Your task to perform on an android device: turn off notifications in google photos Image 0: 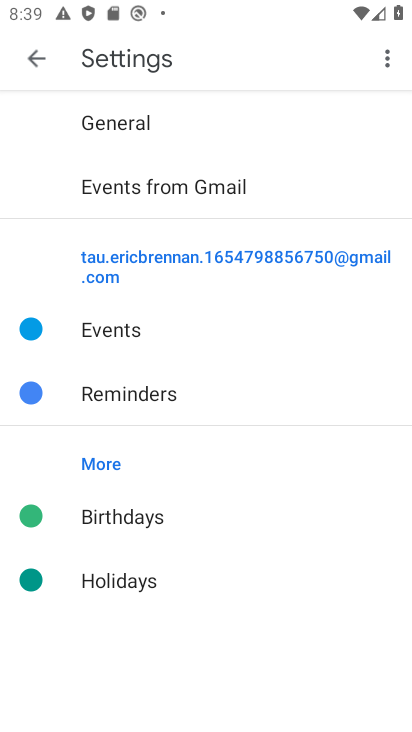
Step 0: press home button
Your task to perform on an android device: turn off notifications in google photos Image 1: 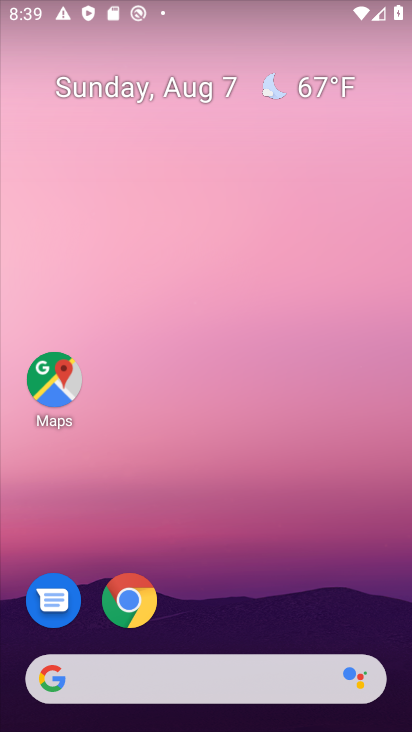
Step 1: drag from (192, 613) to (197, 191)
Your task to perform on an android device: turn off notifications in google photos Image 2: 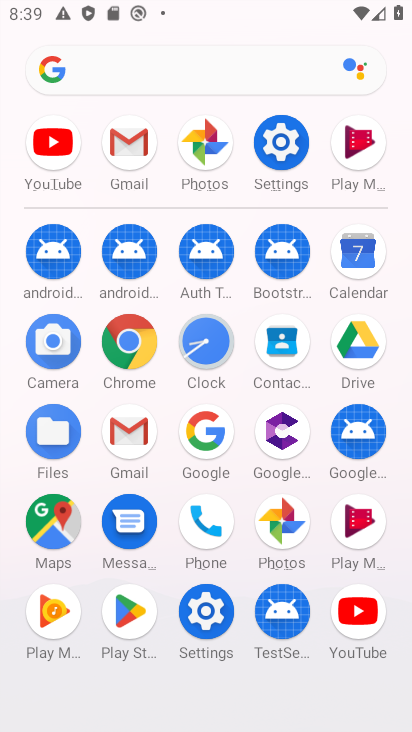
Step 2: click (133, 139)
Your task to perform on an android device: turn off notifications in google photos Image 3: 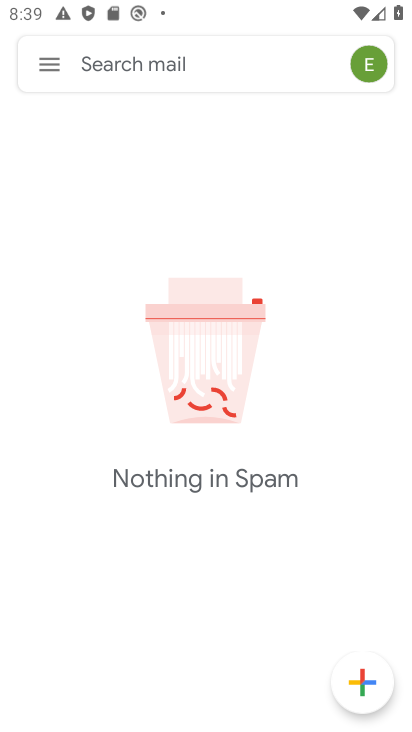
Step 3: click (51, 60)
Your task to perform on an android device: turn off notifications in google photos Image 4: 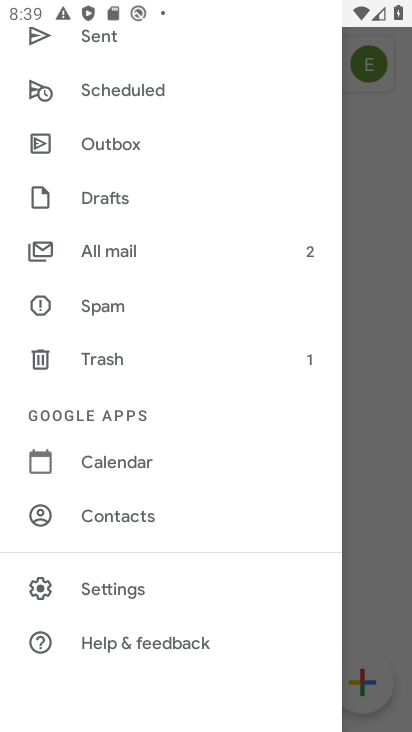
Step 4: click (117, 585)
Your task to perform on an android device: turn off notifications in google photos Image 5: 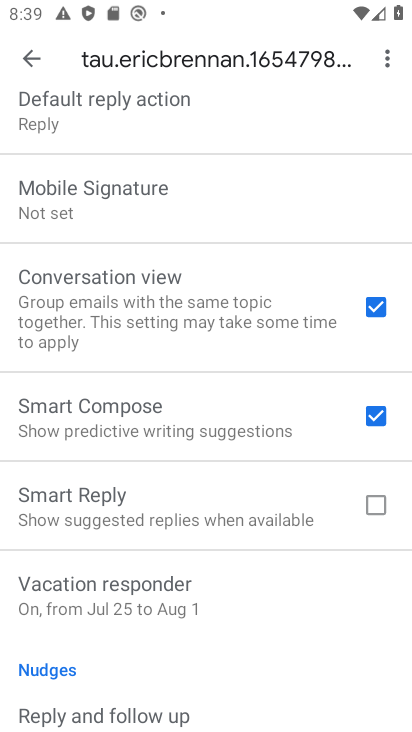
Step 5: drag from (269, 335) to (268, 665)
Your task to perform on an android device: turn off notifications in google photos Image 6: 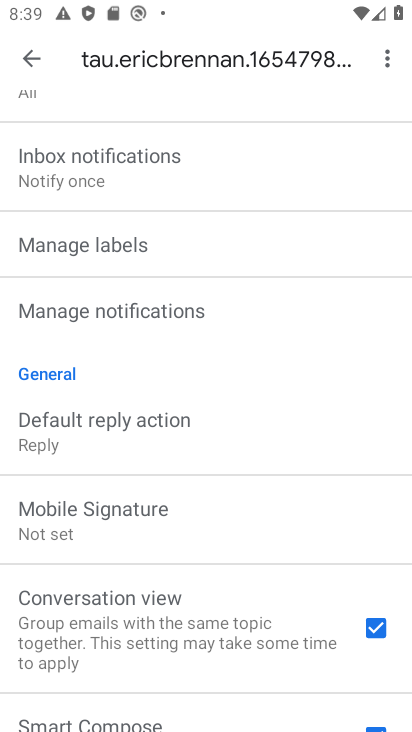
Step 6: click (135, 309)
Your task to perform on an android device: turn off notifications in google photos Image 7: 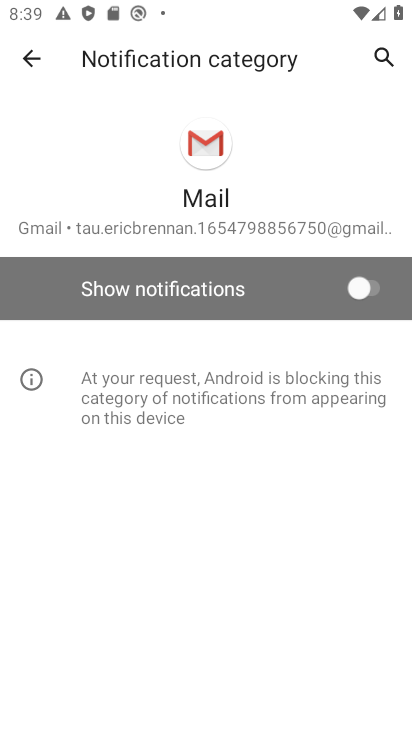
Step 7: task complete